Your task to perform on an android device: allow notifications from all sites in the chrome app Image 0: 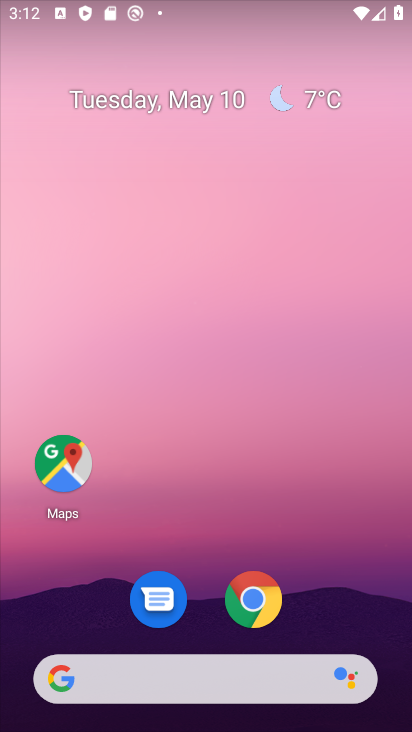
Step 0: drag from (302, 548) to (327, 149)
Your task to perform on an android device: allow notifications from all sites in the chrome app Image 1: 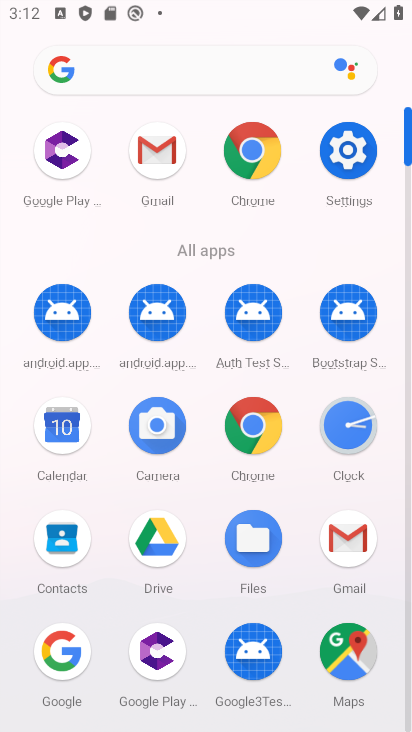
Step 1: click (255, 417)
Your task to perform on an android device: allow notifications from all sites in the chrome app Image 2: 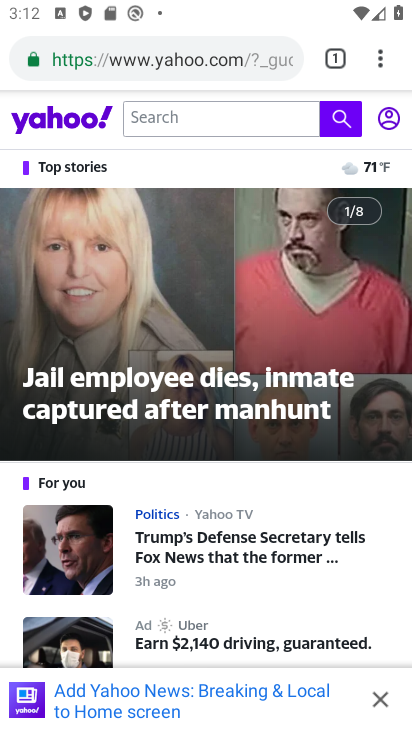
Step 2: click (376, 68)
Your task to perform on an android device: allow notifications from all sites in the chrome app Image 3: 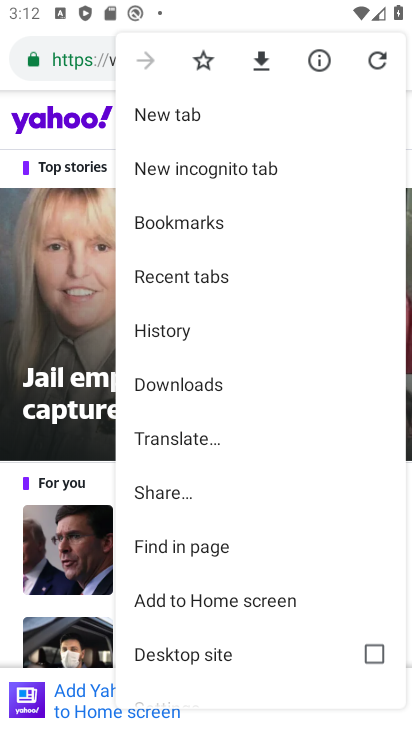
Step 3: drag from (191, 570) to (407, 62)
Your task to perform on an android device: allow notifications from all sites in the chrome app Image 4: 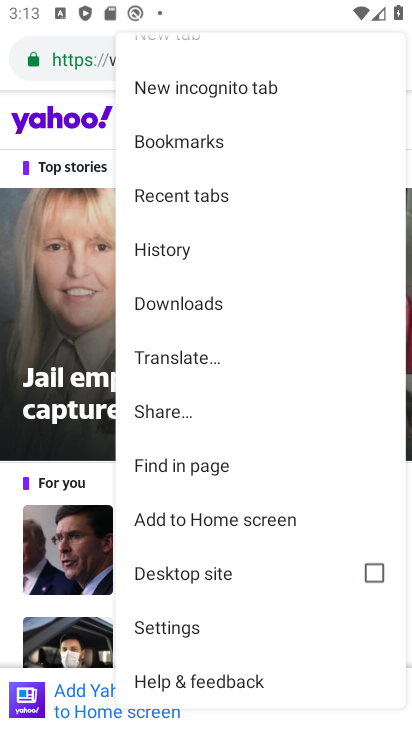
Step 4: click (178, 638)
Your task to perform on an android device: allow notifications from all sites in the chrome app Image 5: 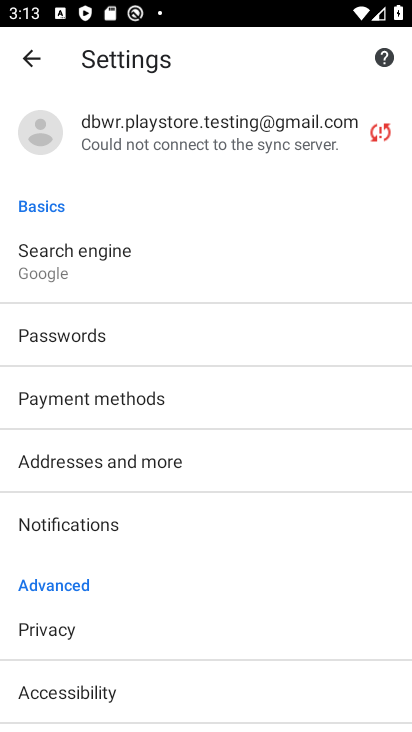
Step 5: drag from (224, 439) to (285, 278)
Your task to perform on an android device: allow notifications from all sites in the chrome app Image 6: 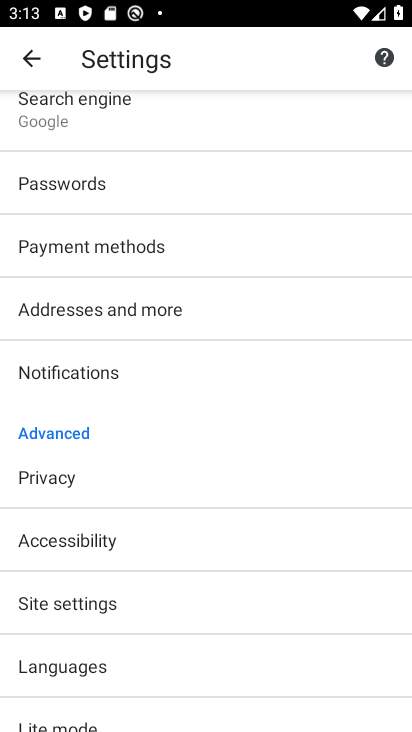
Step 6: click (188, 382)
Your task to perform on an android device: allow notifications from all sites in the chrome app Image 7: 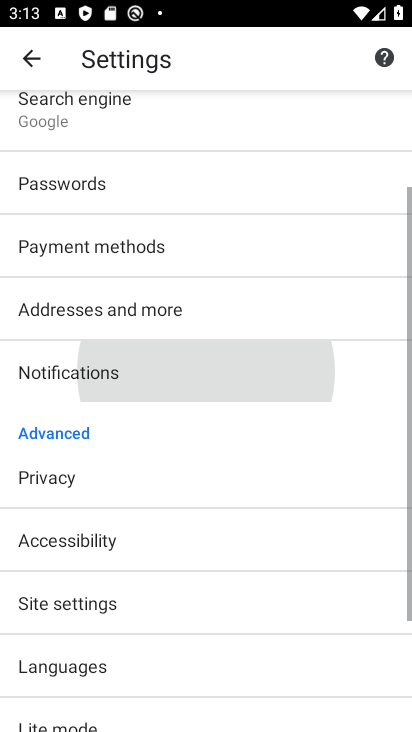
Step 7: click (188, 382)
Your task to perform on an android device: allow notifications from all sites in the chrome app Image 8: 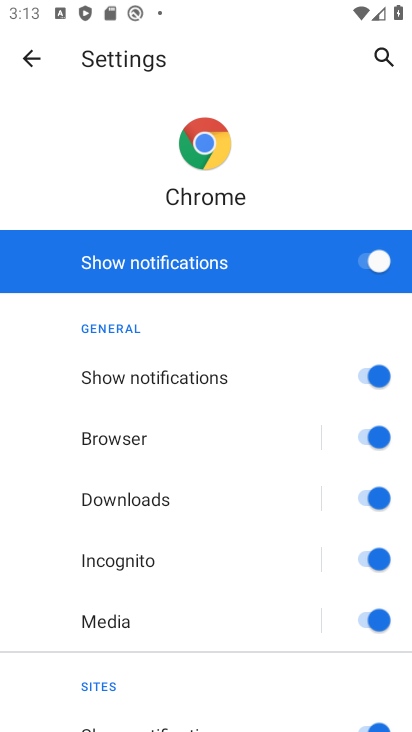
Step 8: task complete